Your task to perform on an android device: set default search engine in the chrome app Image 0: 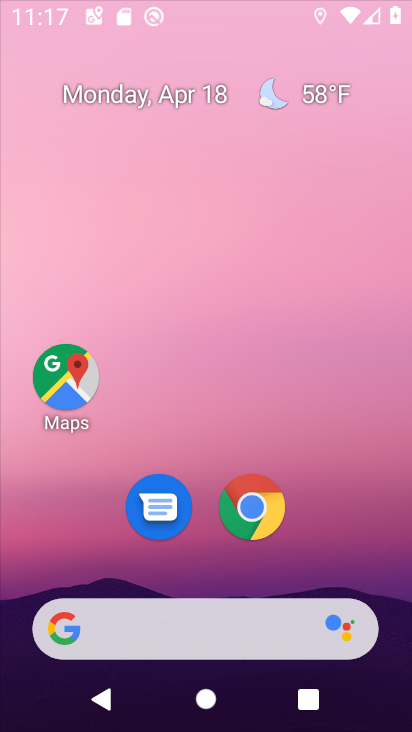
Step 0: click (252, 512)
Your task to perform on an android device: set default search engine in the chrome app Image 1: 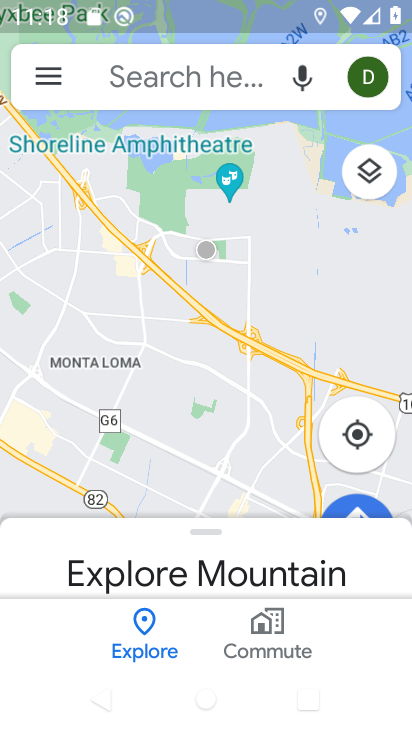
Step 1: click (45, 69)
Your task to perform on an android device: set default search engine in the chrome app Image 2: 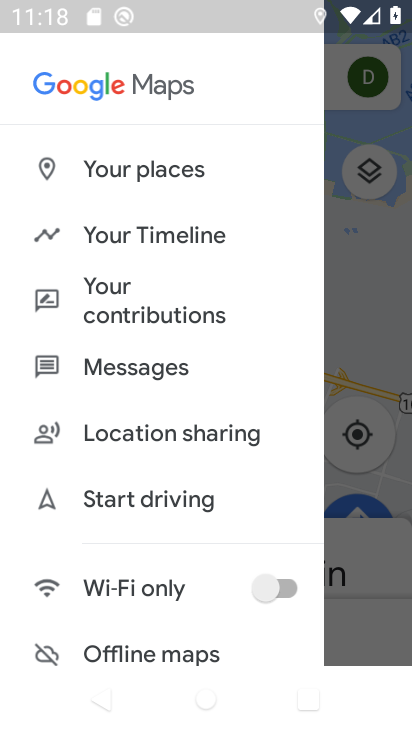
Step 2: drag from (126, 570) to (207, 245)
Your task to perform on an android device: set default search engine in the chrome app Image 3: 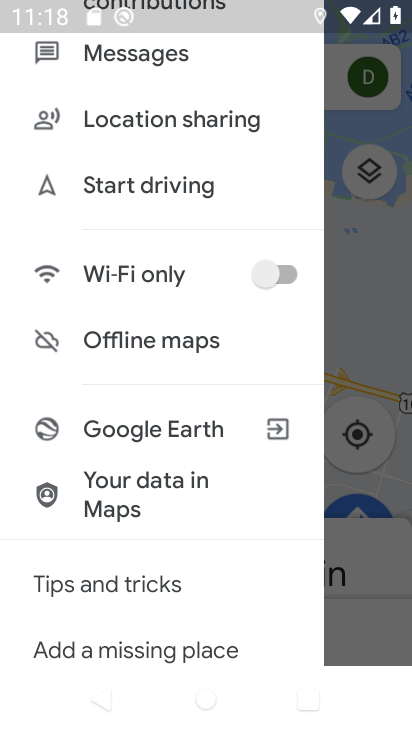
Step 3: drag from (134, 592) to (242, 235)
Your task to perform on an android device: set default search engine in the chrome app Image 4: 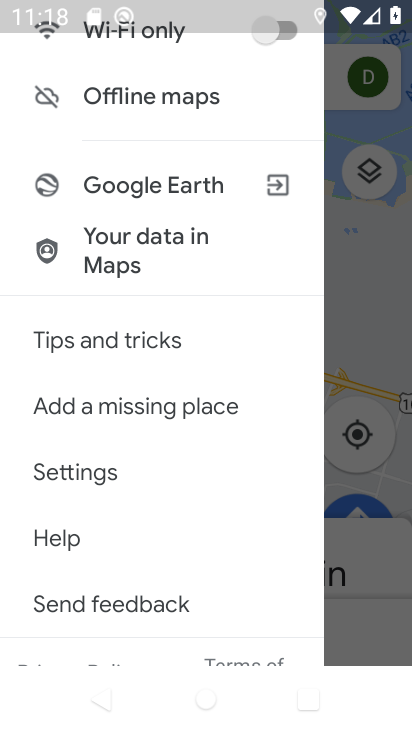
Step 4: press home button
Your task to perform on an android device: set default search engine in the chrome app Image 5: 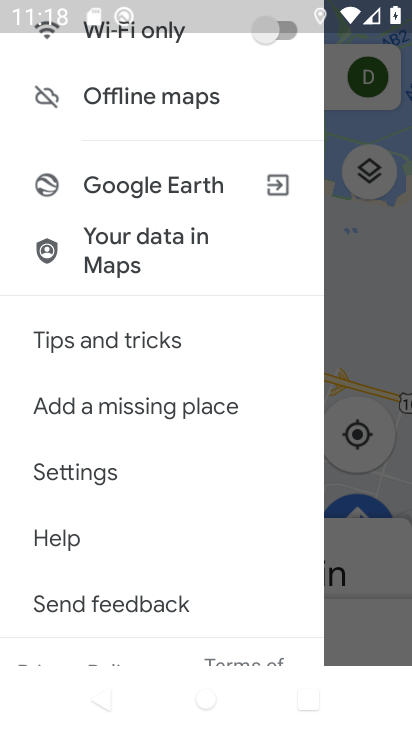
Step 5: press home button
Your task to perform on an android device: set default search engine in the chrome app Image 6: 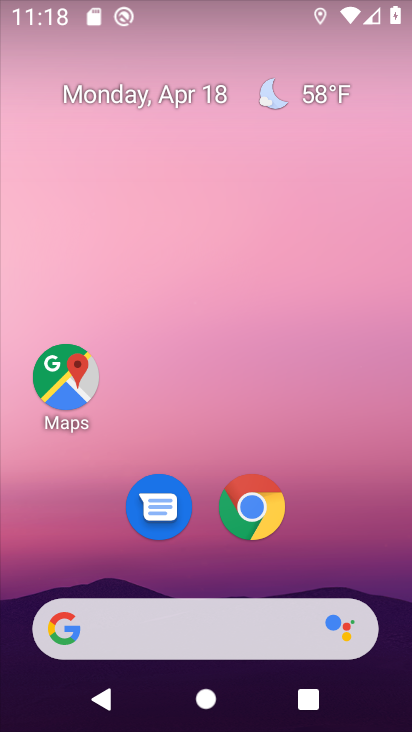
Step 6: click (254, 512)
Your task to perform on an android device: set default search engine in the chrome app Image 7: 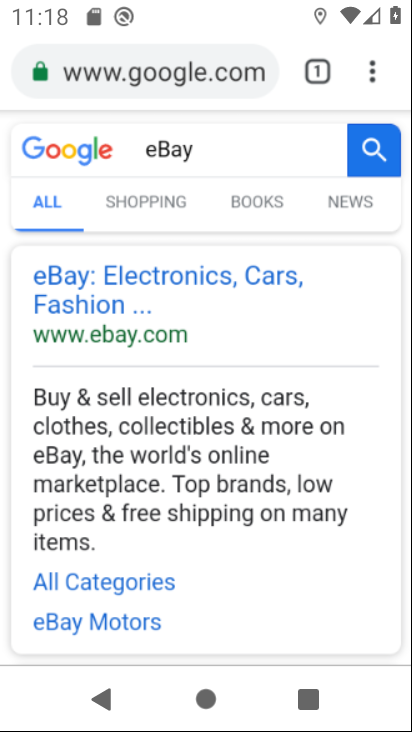
Step 7: click (372, 87)
Your task to perform on an android device: set default search engine in the chrome app Image 8: 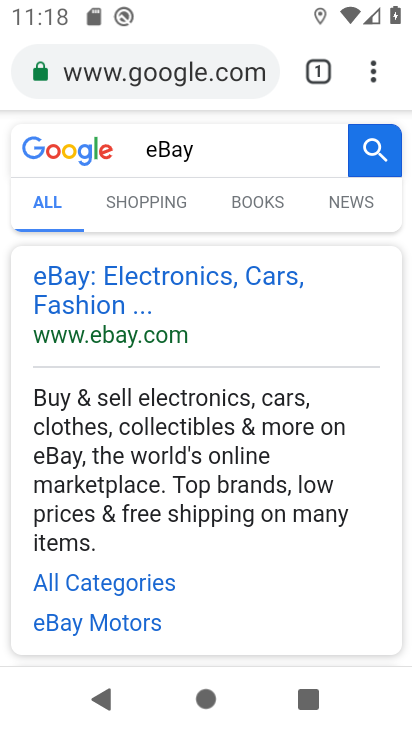
Step 8: click (373, 81)
Your task to perform on an android device: set default search engine in the chrome app Image 9: 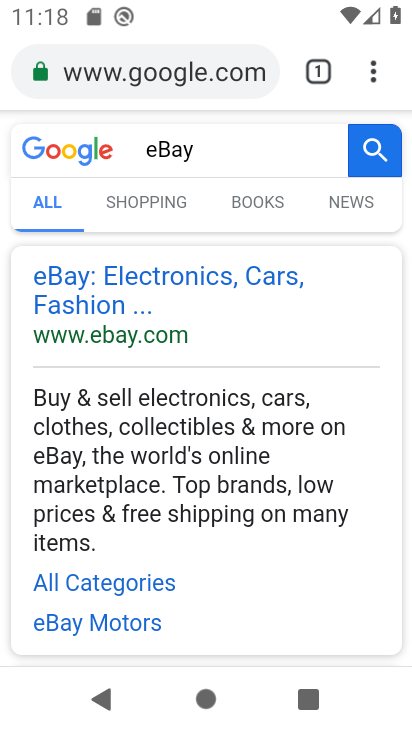
Step 9: click (372, 69)
Your task to perform on an android device: set default search engine in the chrome app Image 10: 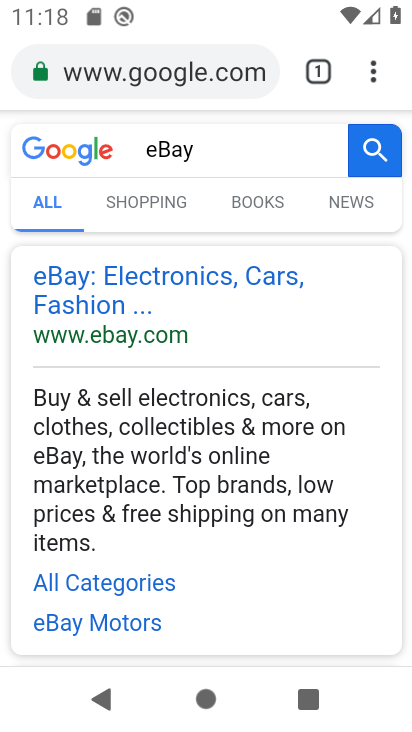
Step 10: click (368, 71)
Your task to perform on an android device: set default search engine in the chrome app Image 11: 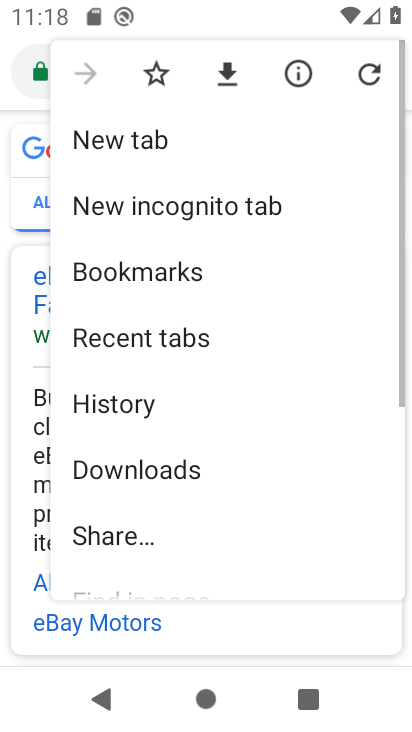
Step 11: drag from (183, 545) to (224, 151)
Your task to perform on an android device: set default search engine in the chrome app Image 12: 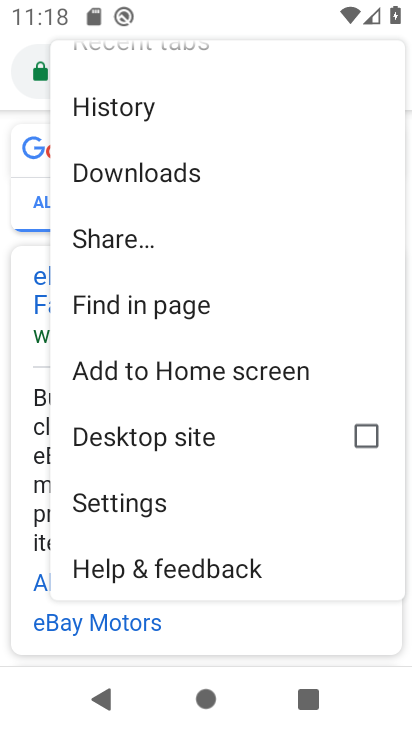
Step 12: click (142, 511)
Your task to perform on an android device: set default search engine in the chrome app Image 13: 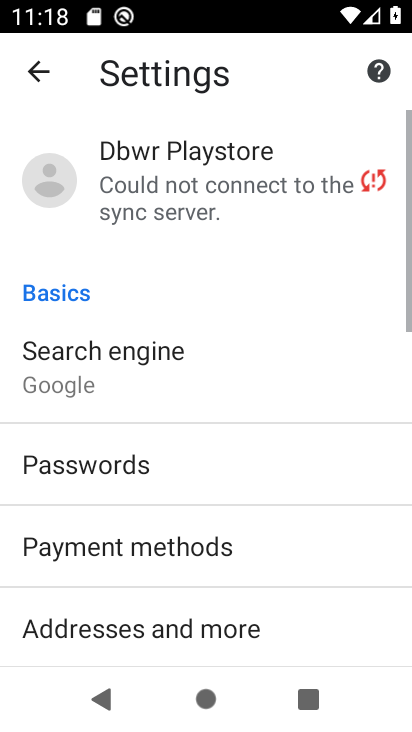
Step 13: click (94, 396)
Your task to perform on an android device: set default search engine in the chrome app Image 14: 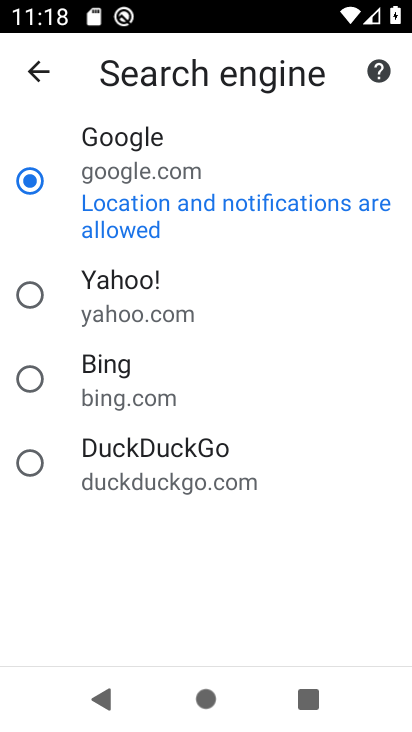
Step 14: click (37, 464)
Your task to perform on an android device: set default search engine in the chrome app Image 15: 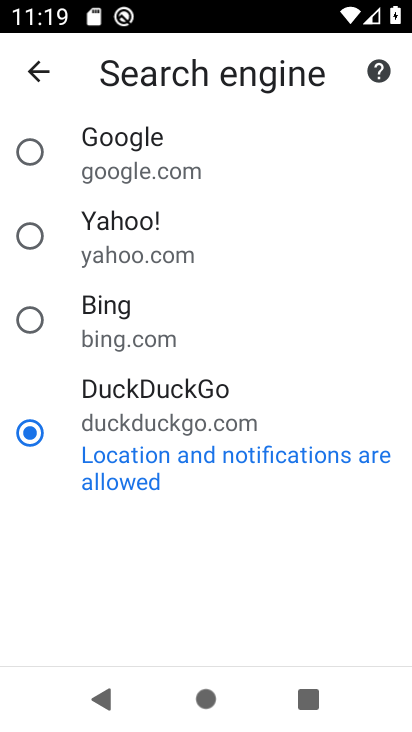
Step 15: task complete